Your task to perform on an android device: Go to CNN.com Image 0: 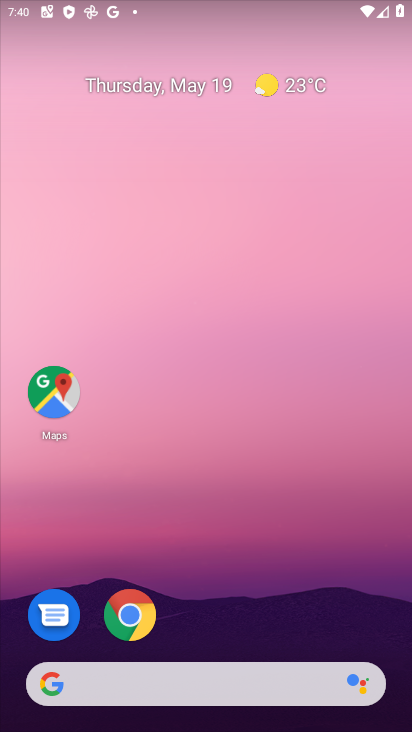
Step 0: drag from (378, 636) to (308, 36)
Your task to perform on an android device: Go to CNN.com Image 1: 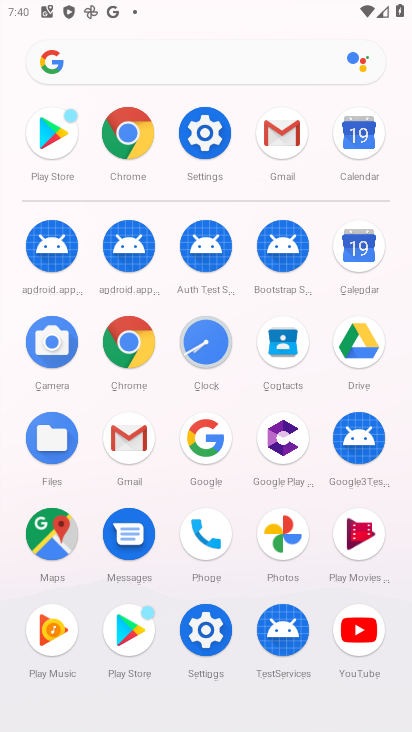
Step 1: click (204, 445)
Your task to perform on an android device: Go to CNN.com Image 2: 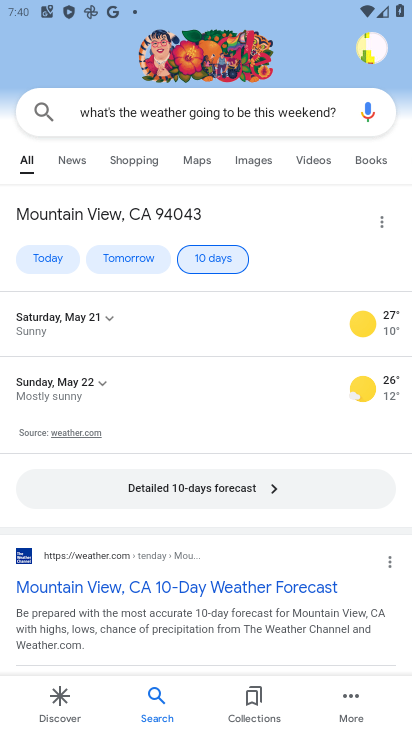
Step 2: press back button
Your task to perform on an android device: Go to CNN.com Image 3: 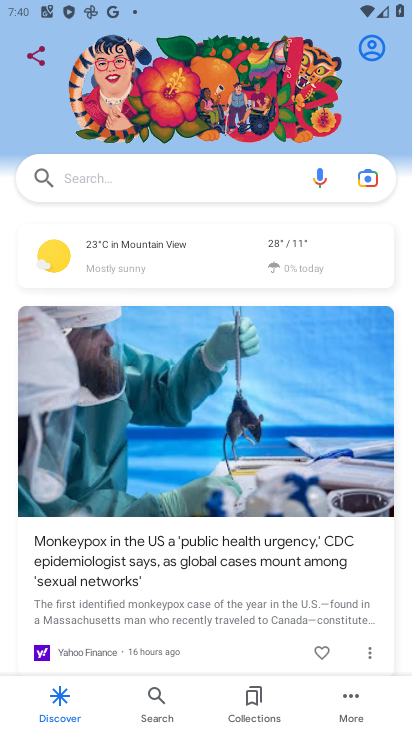
Step 3: click (127, 189)
Your task to perform on an android device: Go to CNN.com Image 4: 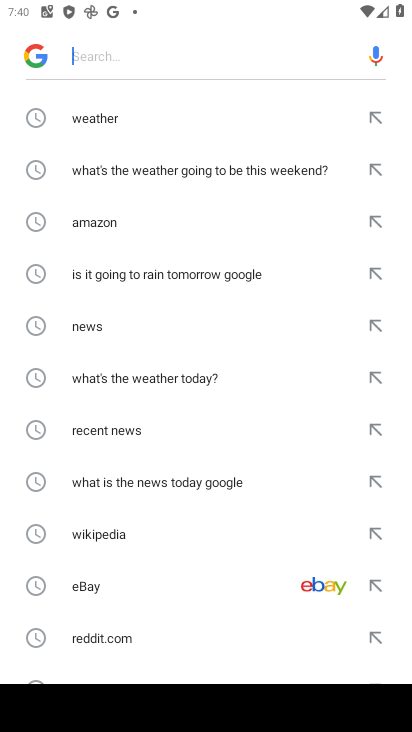
Step 4: drag from (100, 643) to (151, 239)
Your task to perform on an android device: Go to CNN.com Image 5: 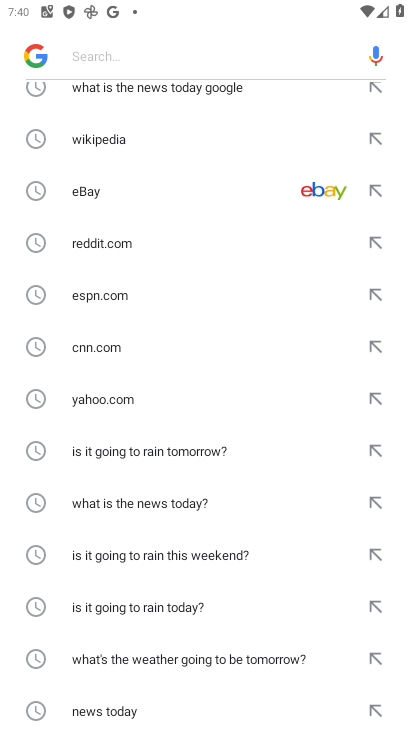
Step 5: click (114, 346)
Your task to perform on an android device: Go to CNN.com Image 6: 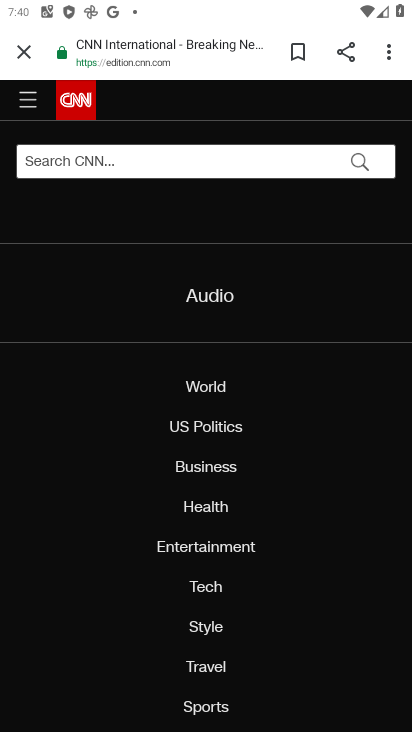
Step 6: task complete